Your task to perform on an android device: stop showing notifications on the lock screen Image 0: 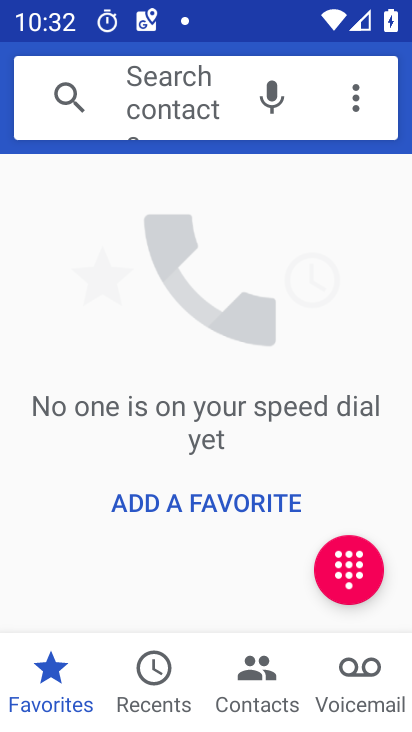
Step 0: press home button
Your task to perform on an android device: stop showing notifications on the lock screen Image 1: 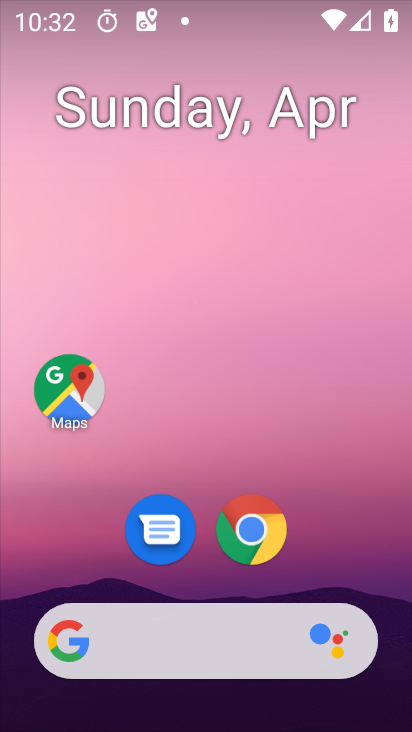
Step 1: drag from (217, 537) to (217, 63)
Your task to perform on an android device: stop showing notifications on the lock screen Image 2: 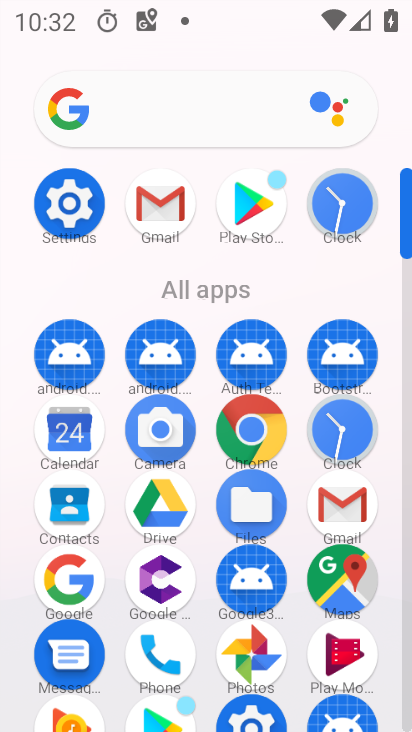
Step 2: click (64, 195)
Your task to perform on an android device: stop showing notifications on the lock screen Image 3: 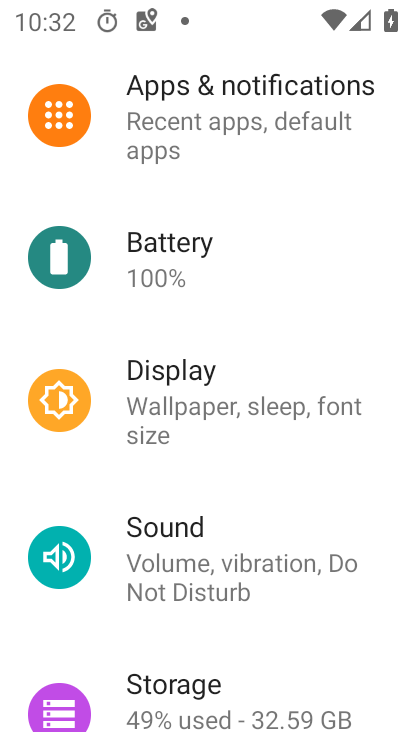
Step 3: click (226, 128)
Your task to perform on an android device: stop showing notifications on the lock screen Image 4: 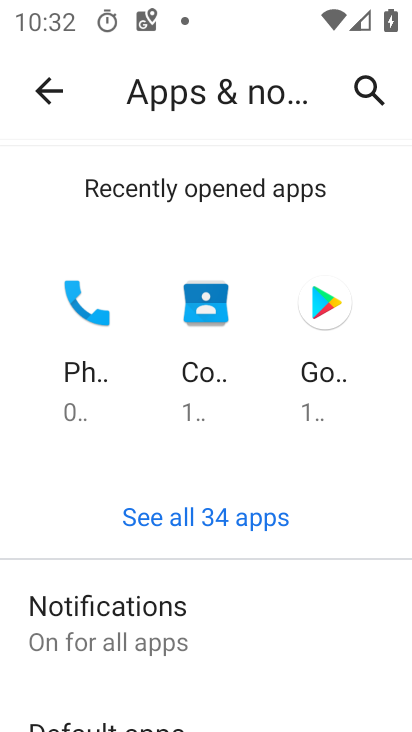
Step 4: click (210, 613)
Your task to perform on an android device: stop showing notifications on the lock screen Image 5: 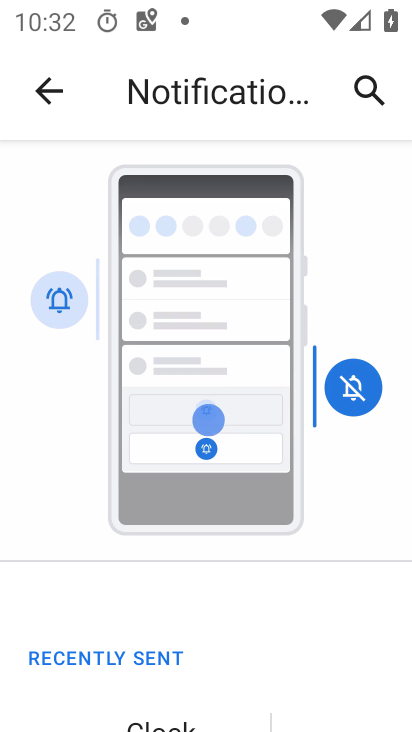
Step 5: drag from (193, 662) to (199, 312)
Your task to perform on an android device: stop showing notifications on the lock screen Image 6: 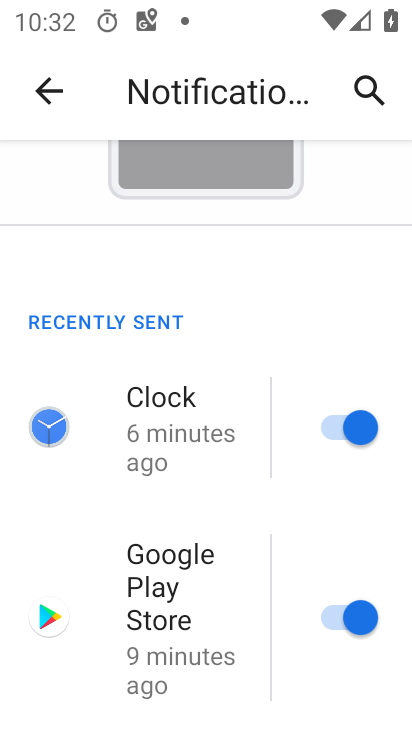
Step 6: drag from (209, 679) to (193, 259)
Your task to perform on an android device: stop showing notifications on the lock screen Image 7: 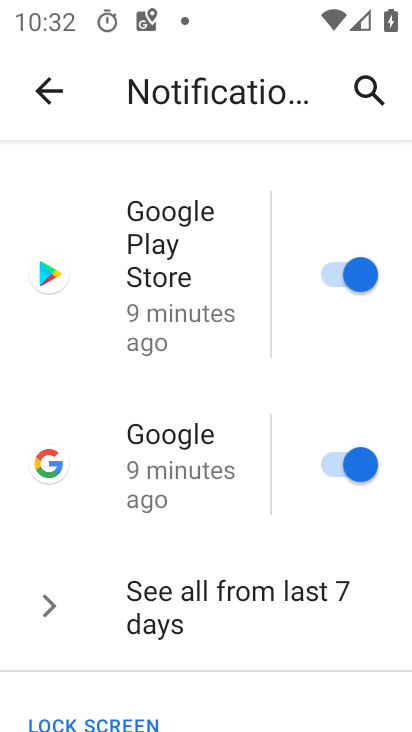
Step 7: drag from (203, 686) to (158, 335)
Your task to perform on an android device: stop showing notifications on the lock screen Image 8: 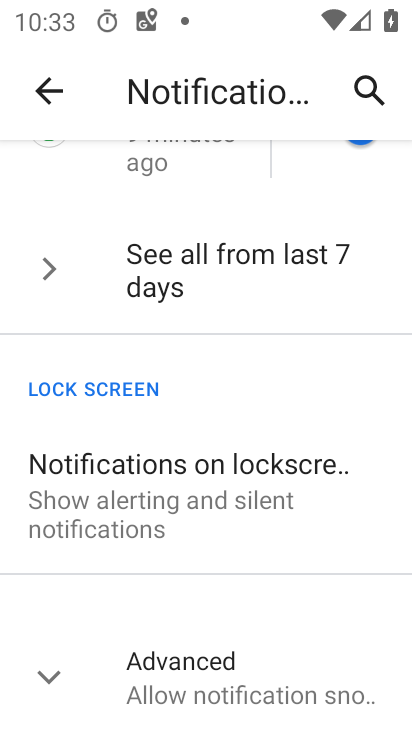
Step 8: click (224, 700)
Your task to perform on an android device: stop showing notifications on the lock screen Image 9: 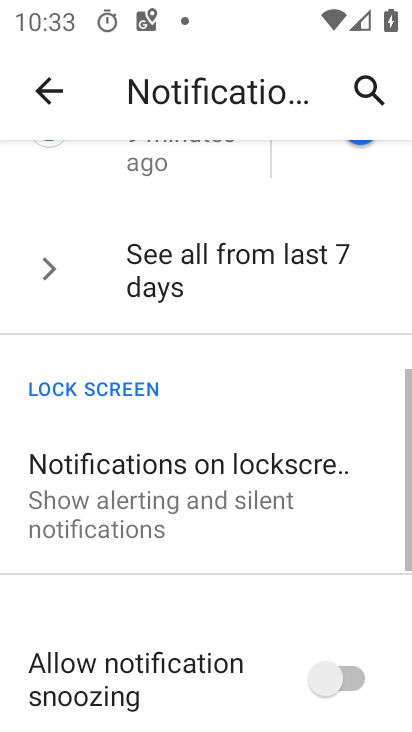
Step 9: click (207, 495)
Your task to perform on an android device: stop showing notifications on the lock screen Image 10: 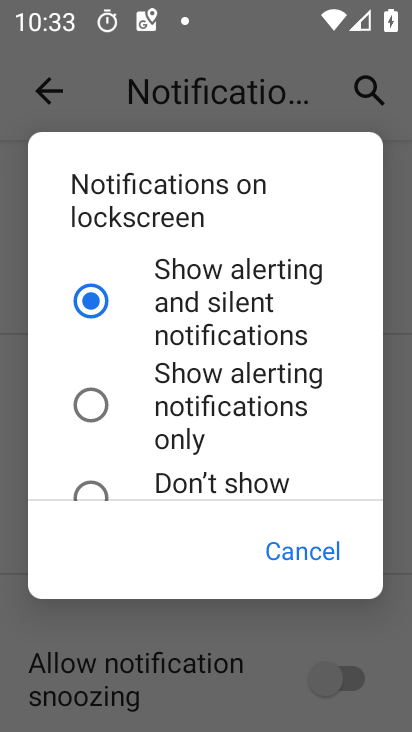
Step 10: click (105, 502)
Your task to perform on an android device: stop showing notifications on the lock screen Image 11: 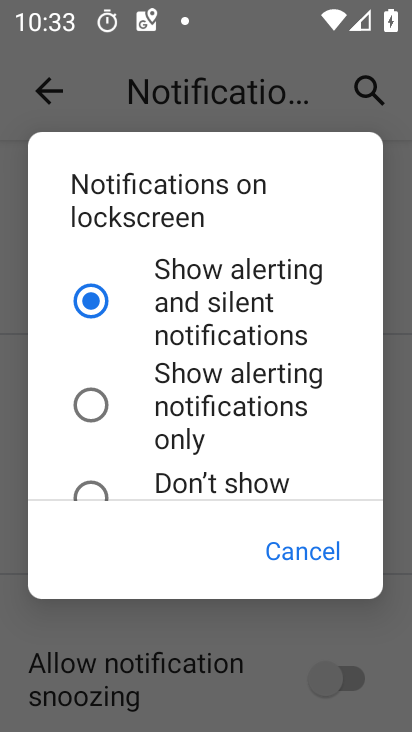
Step 11: click (91, 491)
Your task to perform on an android device: stop showing notifications on the lock screen Image 12: 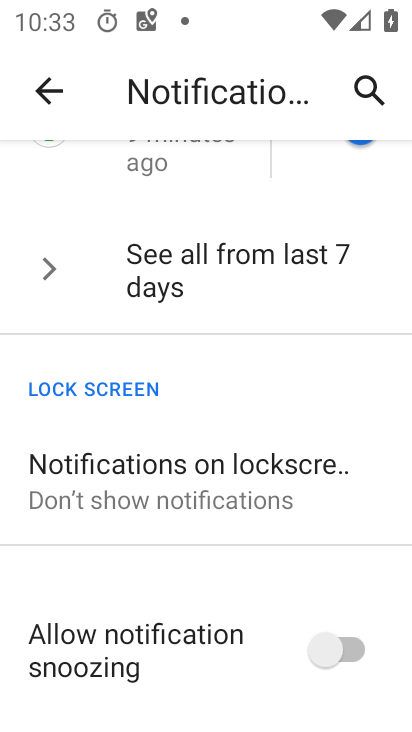
Step 12: task complete